Your task to perform on an android device: What's the weather going to be tomorrow? Image 0: 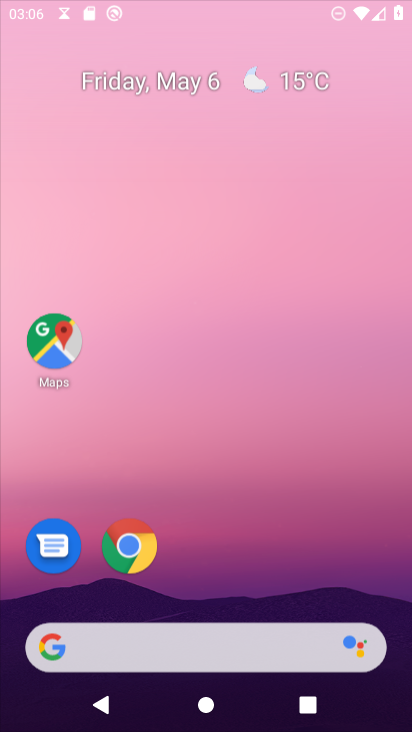
Step 0: click (287, 231)
Your task to perform on an android device: What's the weather going to be tomorrow? Image 1: 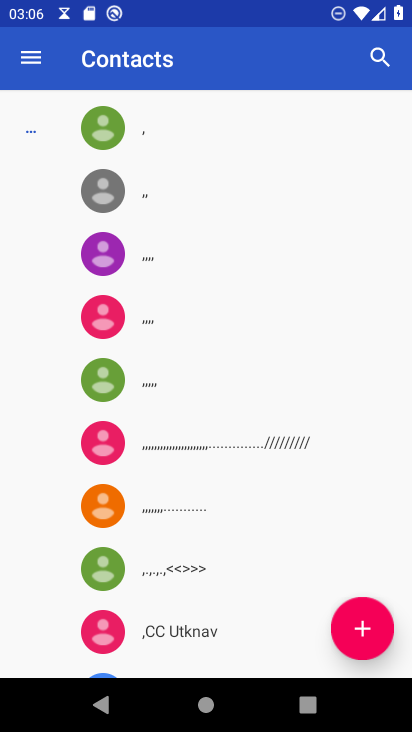
Step 1: press home button
Your task to perform on an android device: What's the weather going to be tomorrow? Image 2: 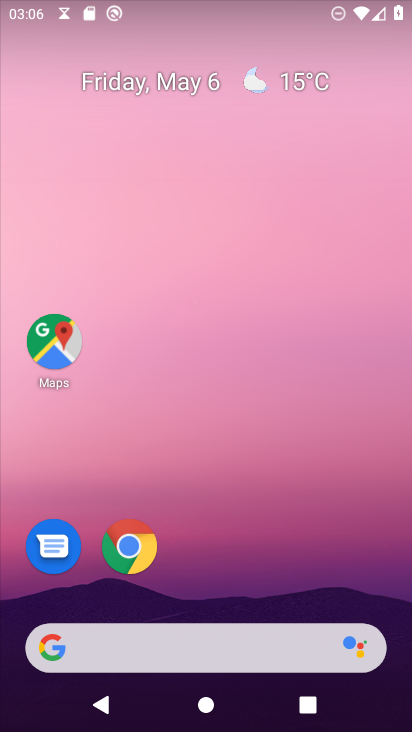
Step 2: click (304, 78)
Your task to perform on an android device: What's the weather going to be tomorrow? Image 3: 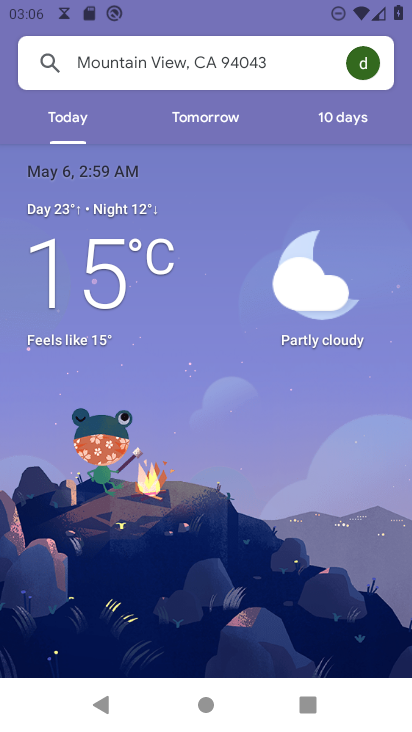
Step 3: click (221, 113)
Your task to perform on an android device: What's the weather going to be tomorrow? Image 4: 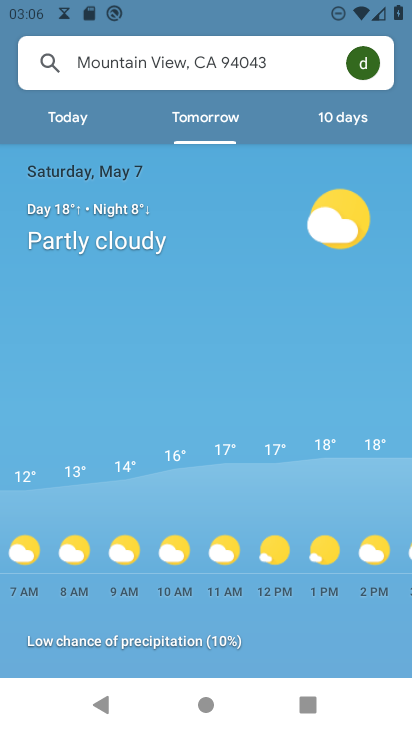
Step 4: task complete